Your task to perform on an android device: Open ESPN.com Image 0: 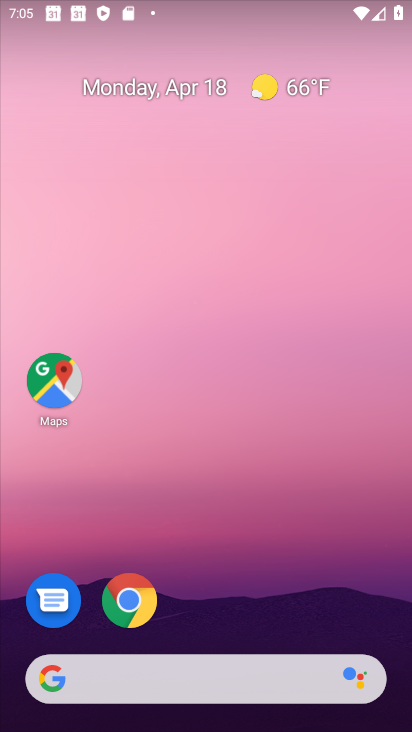
Step 0: click (142, 603)
Your task to perform on an android device: Open ESPN.com Image 1: 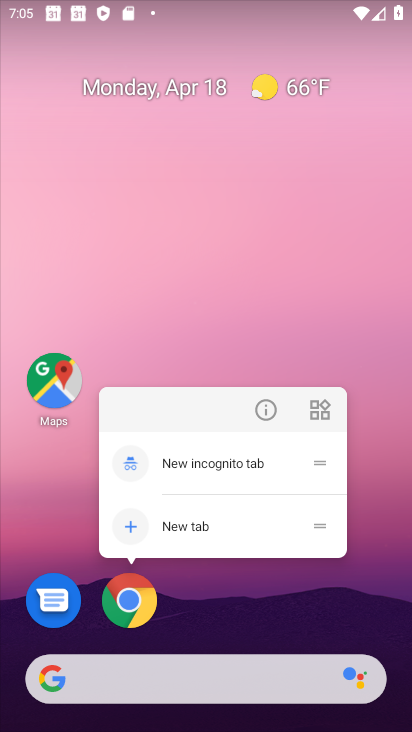
Step 1: click (169, 524)
Your task to perform on an android device: Open ESPN.com Image 2: 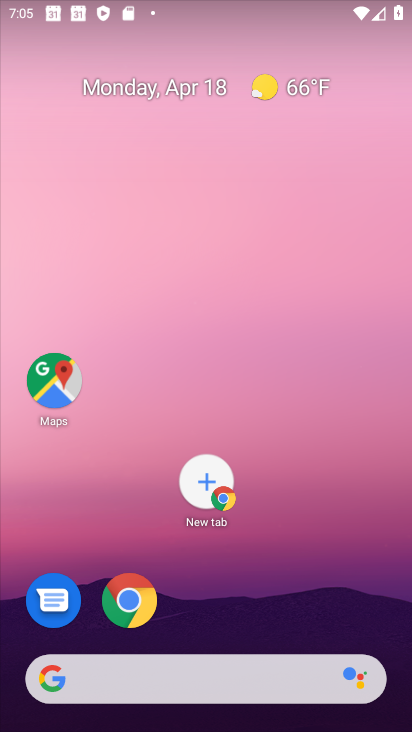
Step 2: drag from (188, 569) to (193, 3)
Your task to perform on an android device: Open ESPN.com Image 3: 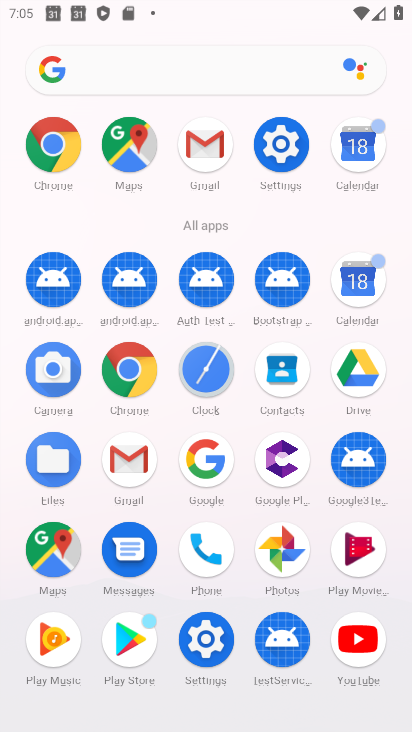
Step 3: click (56, 145)
Your task to perform on an android device: Open ESPN.com Image 4: 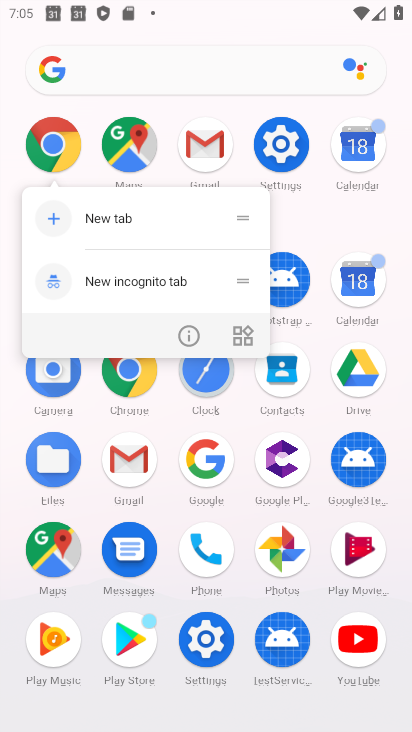
Step 4: click (51, 151)
Your task to perform on an android device: Open ESPN.com Image 5: 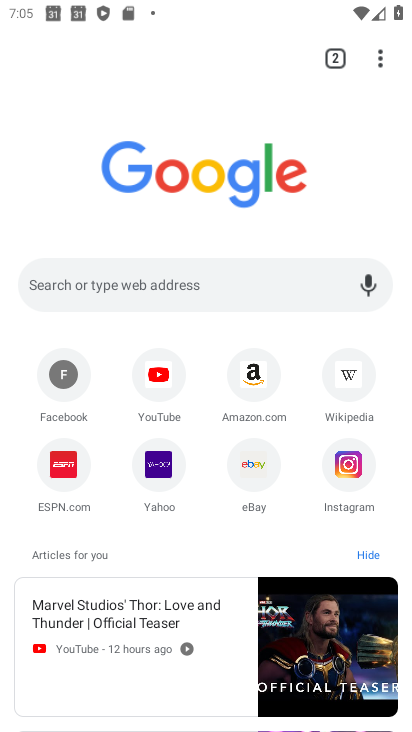
Step 5: click (51, 151)
Your task to perform on an android device: Open ESPN.com Image 6: 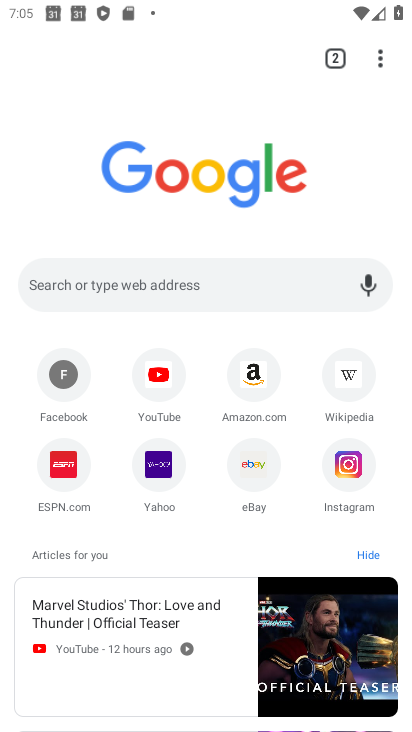
Step 6: click (199, 274)
Your task to perform on an android device: Open ESPN.com Image 7: 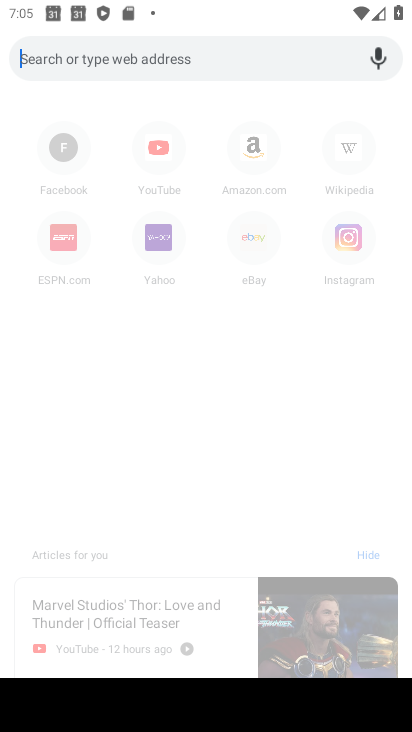
Step 7: type "ESPN.com"
Your task to perform on an android device: Open ESPN.com Image 8: 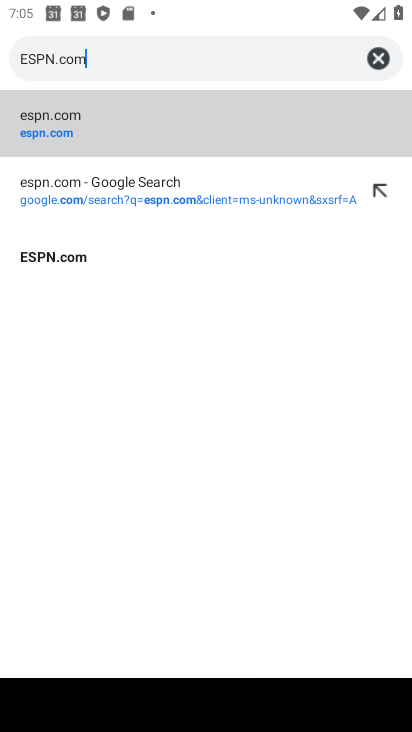
Step 8: type ""
Your task to perform on an android device: Open ESPN.com Image 9: 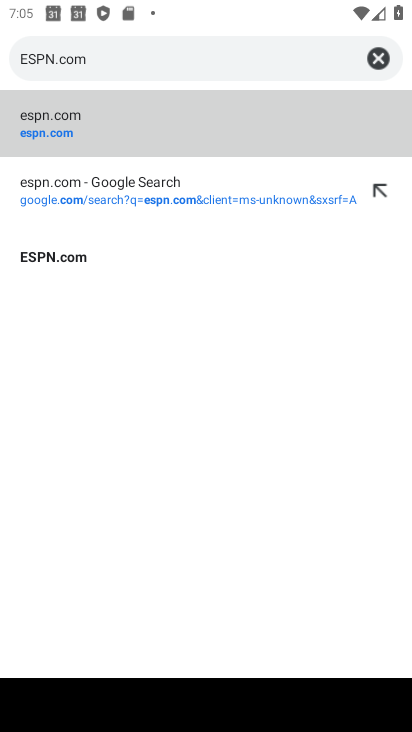
Step 9: click (63, 112)
Your task to perform on an android device: Open ESPN.com Image 10: 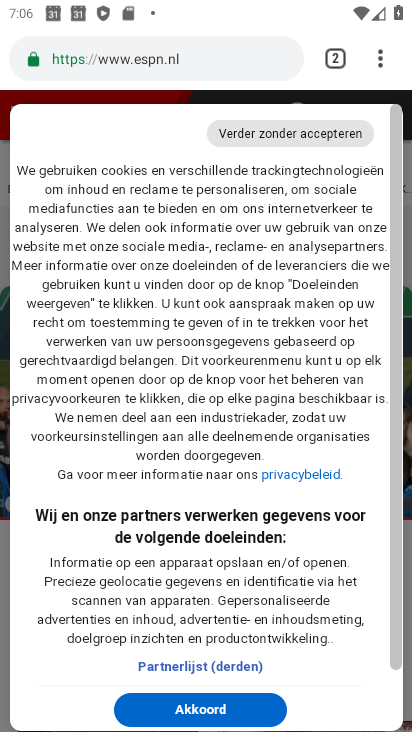
Step 10: click (210, 703)
Your task to perform on an android device: Open ESPN.com Image 11: 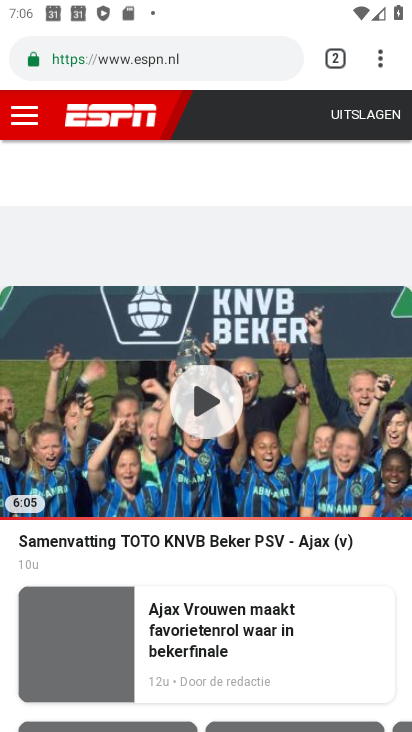
Step 11: task complete